Your task to perform on an android device: What is the recent news? Image 0: 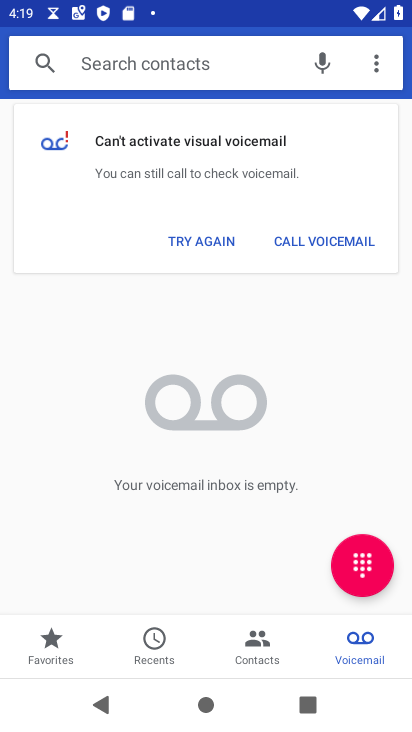
Step 0: press home button
Your task to perform on an android device: What is the recent news? Image 1: 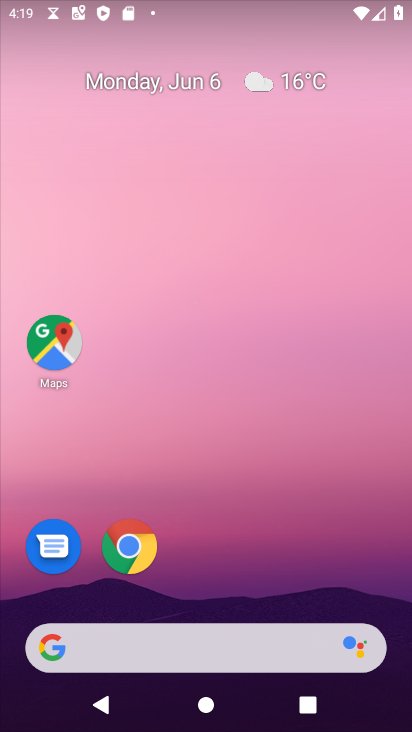
Step 1: drag from (250, 558) to (208, 20)
Your task to perform on an android device: What is the recent news? Image 2: 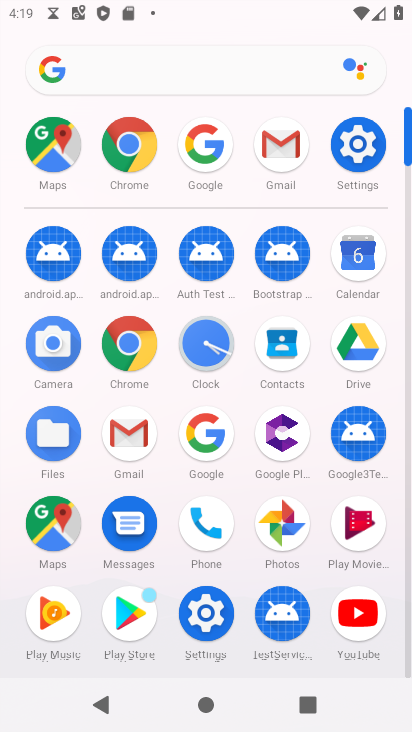
Step 2: click (134, 142)
Your task to perform on an android device: What is the recent news? Image 3: 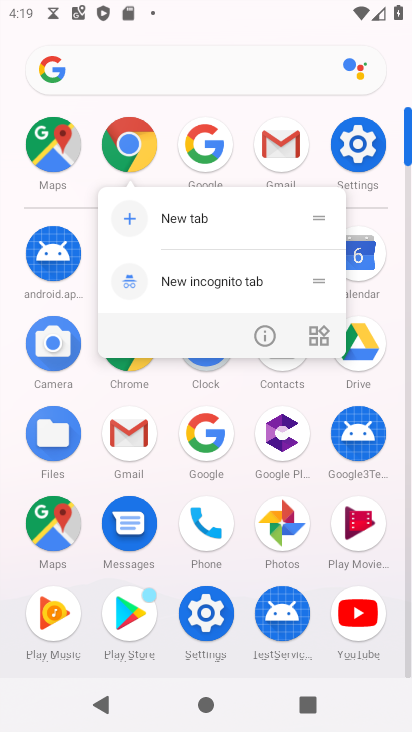
Step 3: click (134, 141)
Your task to perform on an android device: What is the recent news? Image 4: 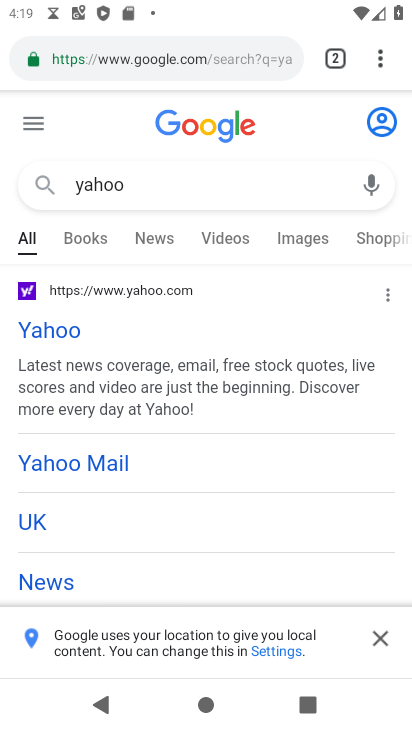
Step 4: task complete